Your task to perform on an android device: change timer sound Image 0: 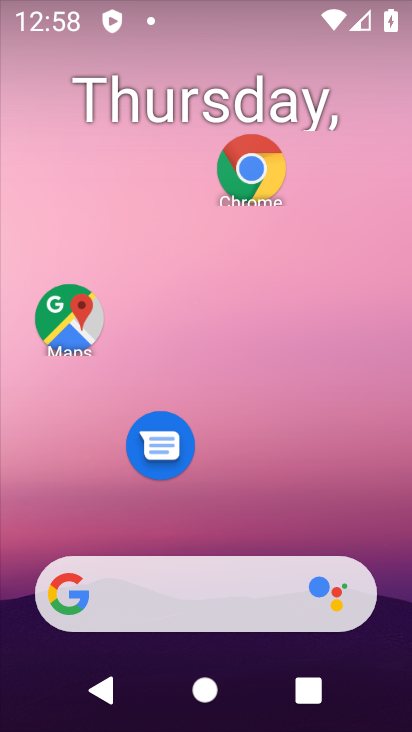
Step 0: drag from (238, 641) to (285, 273)
Your task to perform on an android device: change timer sound Image 1: 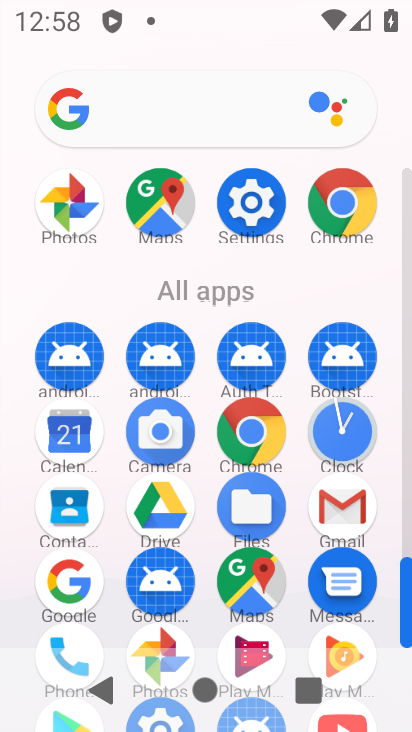
Step 1: click (350, 423)
Your task to perform on an android device: change timer sound Image 2: 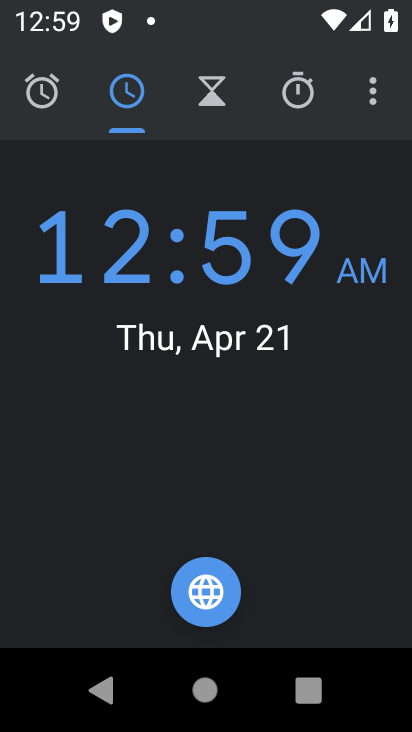
Step 2: click (374, 93)
Your task to perform on an android device: change timer sound Image 3: 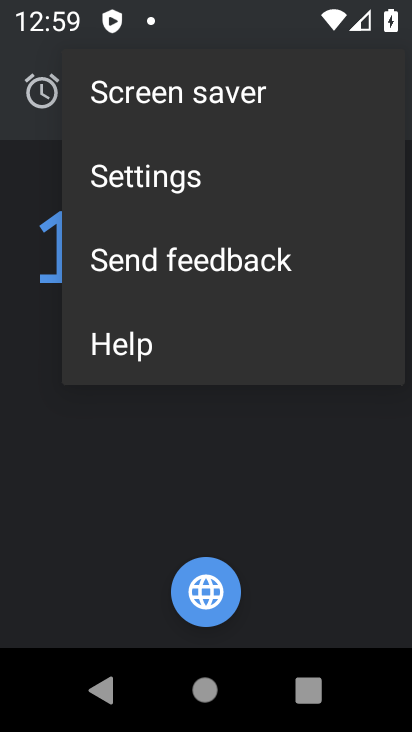
Step 3: click (202, 175)
Your task to perform on an android device: change timer sound Image 4: 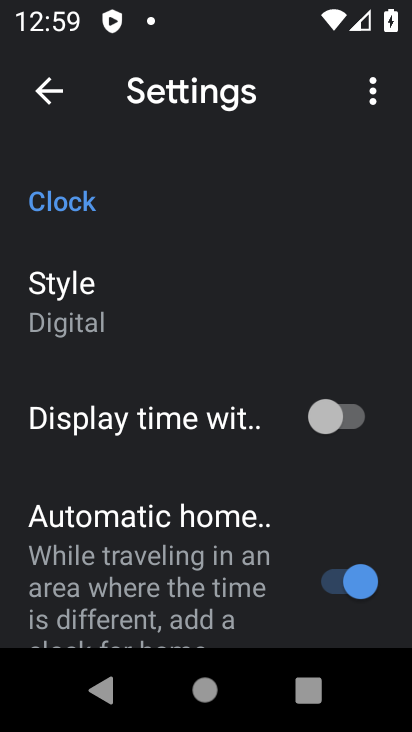
Step 4: drag from (197, 445) to (222, 167)
Your task to perform on an android device: change timer sound Image 5: 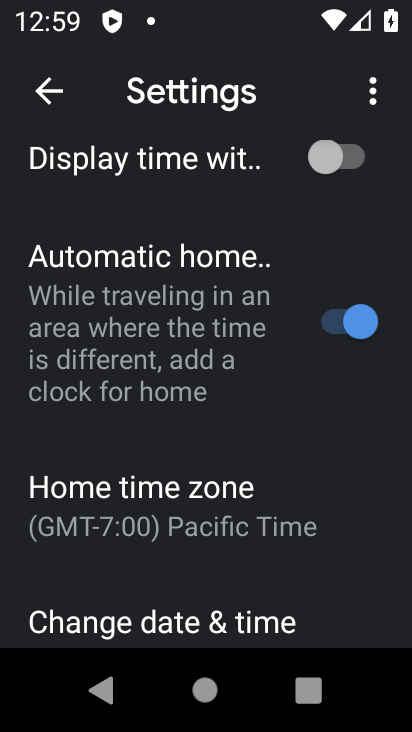
Step 5: drag from (204, 535) to (224, 274)
Your task to perform on an android device: change timer sound Image 6: 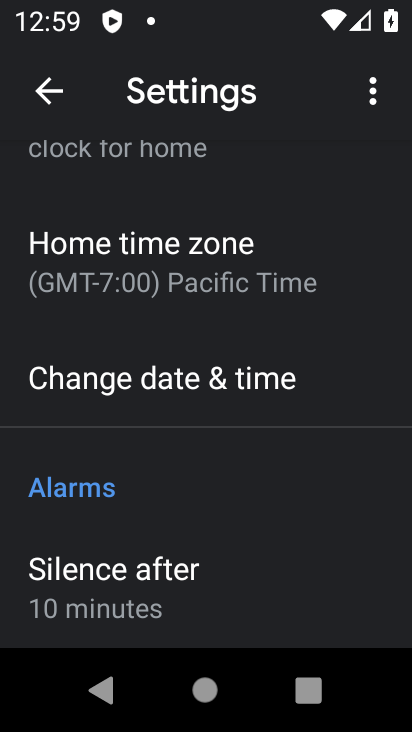
Step 6: drag from (219, 511) to (234, 310)
Your task to perform on an android device: change timer sound Image 7: 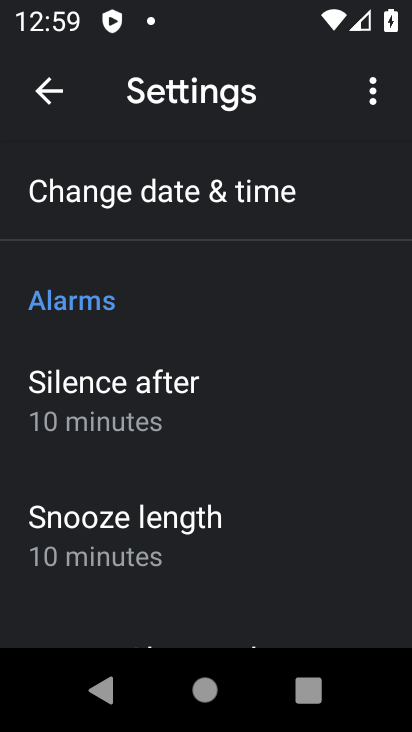
Step 7: drag from (201, 461) to (208, 329)
Your task to perform on an android device: change timer sound Image 8: 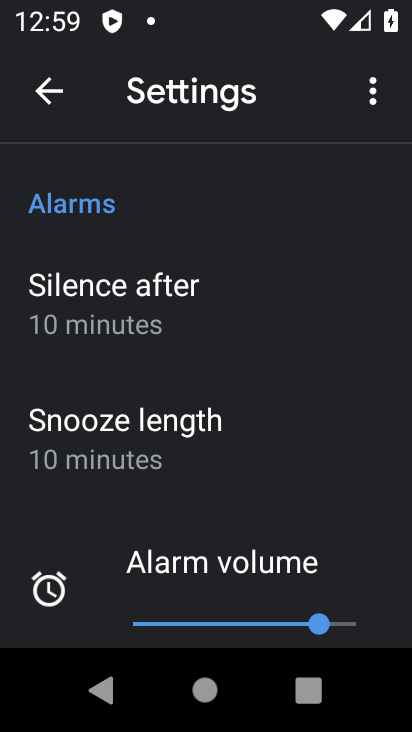
Step 8: drag from (195, 447) to (199, 312)
Your task to perform on an android device: change timer sound Image 9: 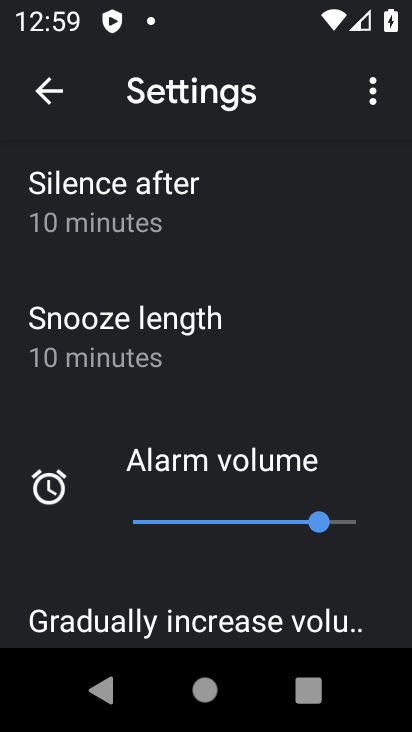
Step 9: drag from (163, 565) to (237, 386)
Your task to perform on an android device: change timer sound Image 10: 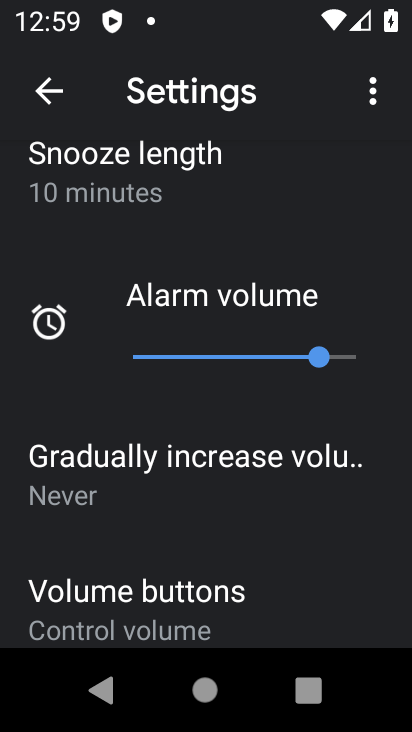
Step 10: drag from (157, 617) to (193, 498)
Your task to perform on an android device: change timer sound Image 11: 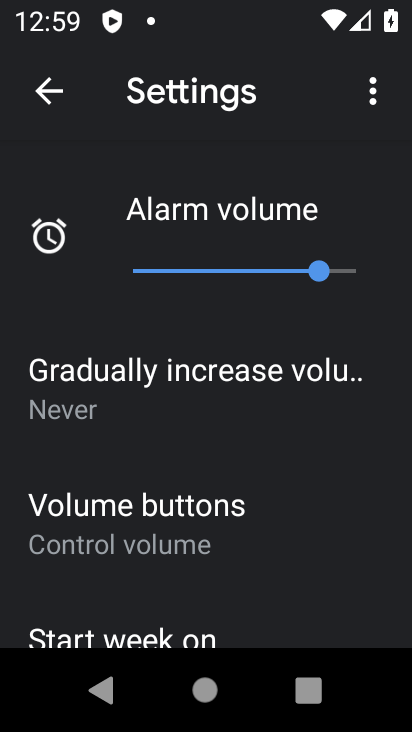
Step 11: drag from (185, 547) to (254, 382)
Your task to perform on an android device: change timer sound Image 12: 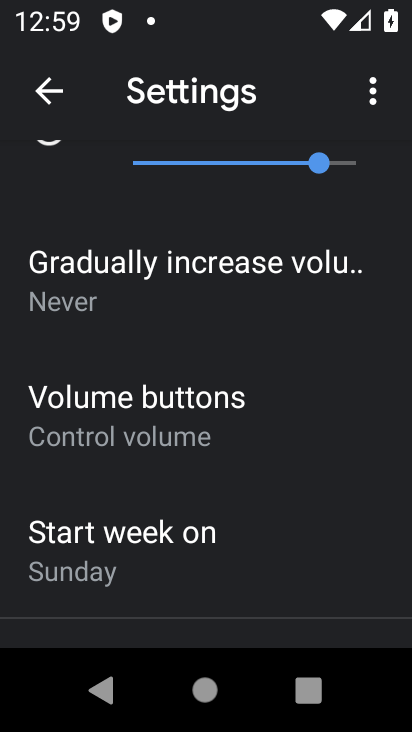
Step 12: drag from (210, 464) to (249, 327)
Your task to perform on an android device: change timer sound Image 13: 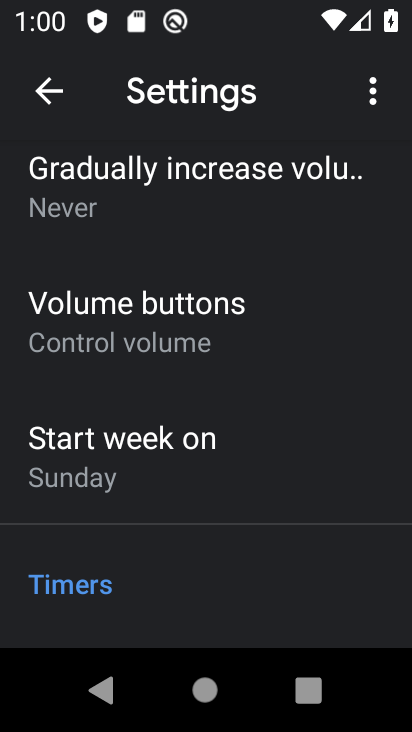
Step 13: drag from (198, 456) to (244, 341)
Your task to perform on an android device: change timer sound Image 14: 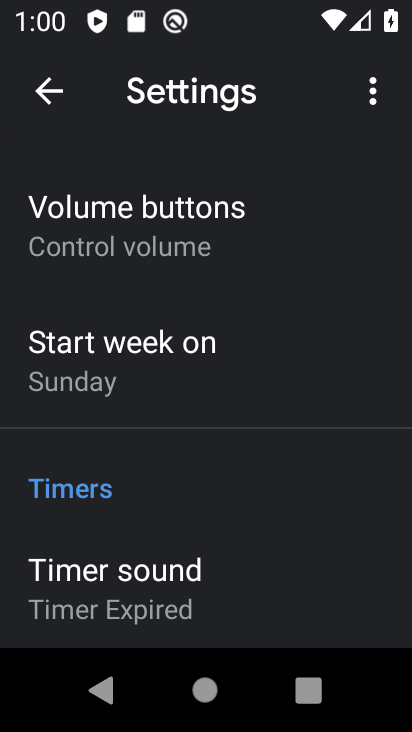
Step 14: click (154, 567)
Your task to perform on an android device: change timer sound Image 15: 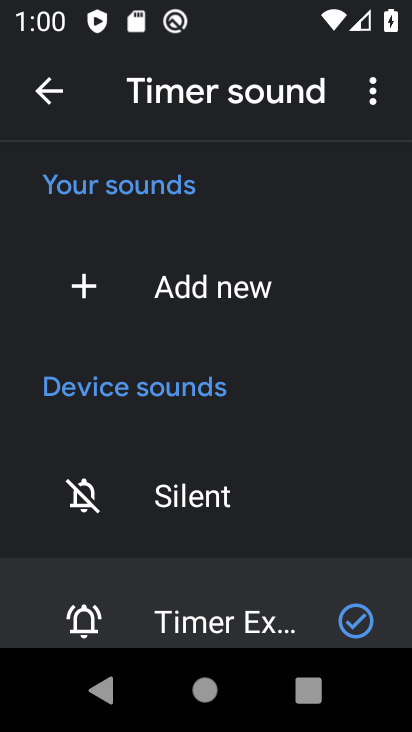
Step 15: drag from (180, 540) to (203, 419)
Your task to perform on an android device: change timer sound Image 16: 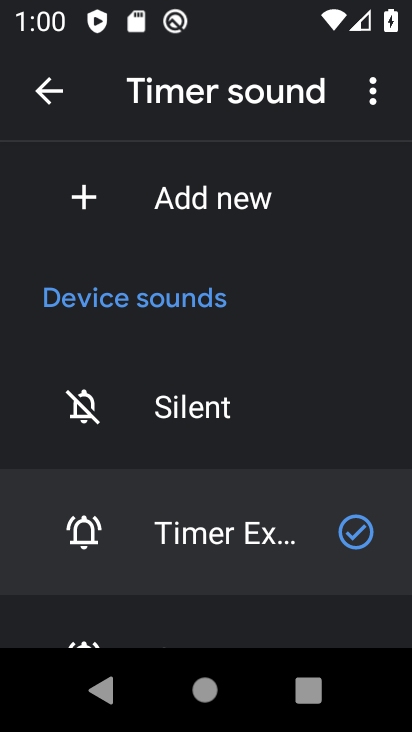
Step 16: drag from (187, 463) to (225, 360)
Your task to perform on an android device: change timer sound Image 17: 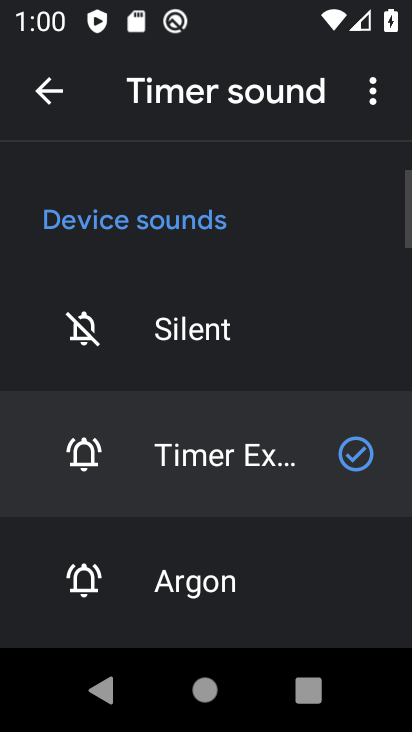
Step 17: click (176, 560)
Your task to perform on an android device: change timer sound Image 18: 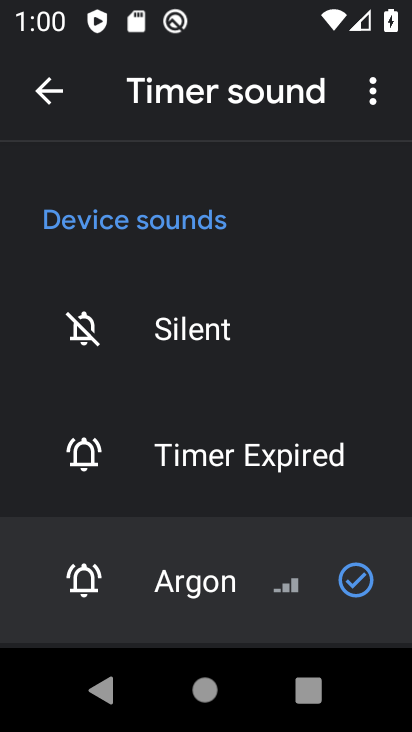
Step 18: task complete